Your task to perform on an android device: Open CNN.com Image 0: 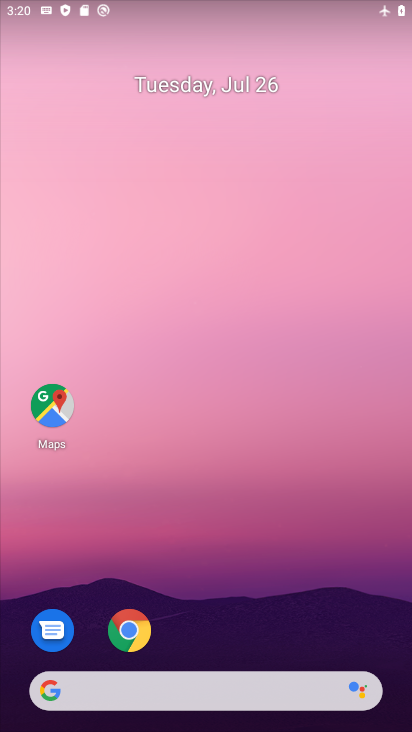
Step 0: drag from (243, 582) to (190, 230)
Your task to perform on an android device: Open CNN.com Image 1: 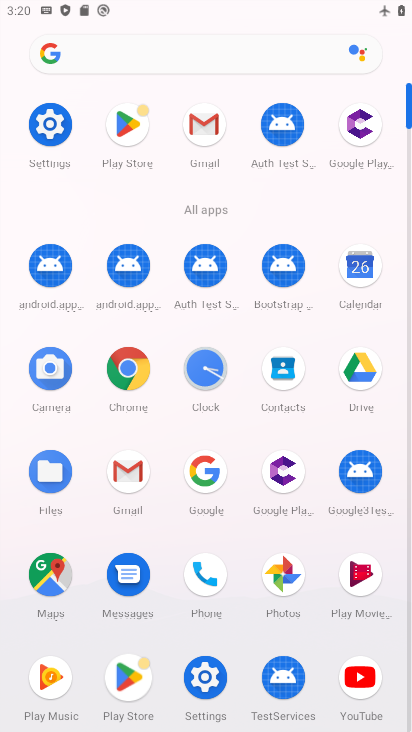
Step 1: click (128, 373)
Your task to perform on an android device: Open CNN.com Image 2: 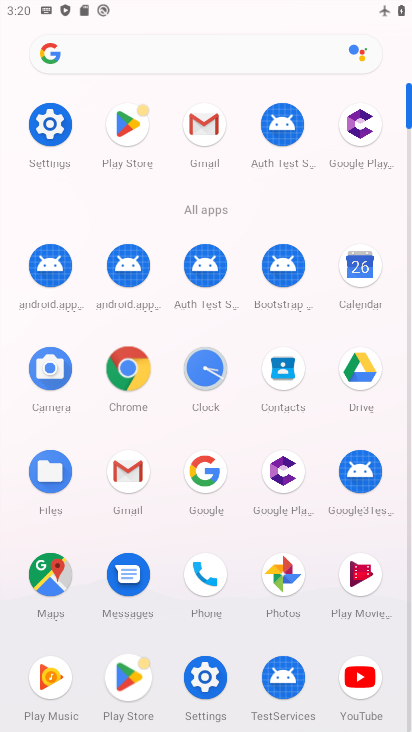
Step 2: click (129, 373)
Your task to perform on an android device: Open CNN.com Image 3: 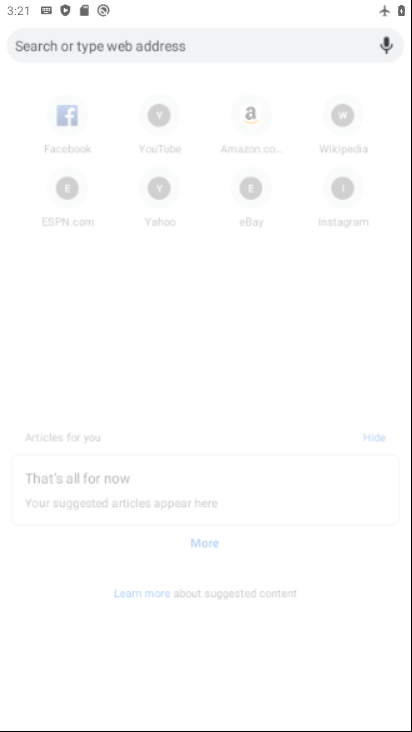
Step 3: click (133, 377)
Your task to perform on an android device: Open CNN.com Image 4: 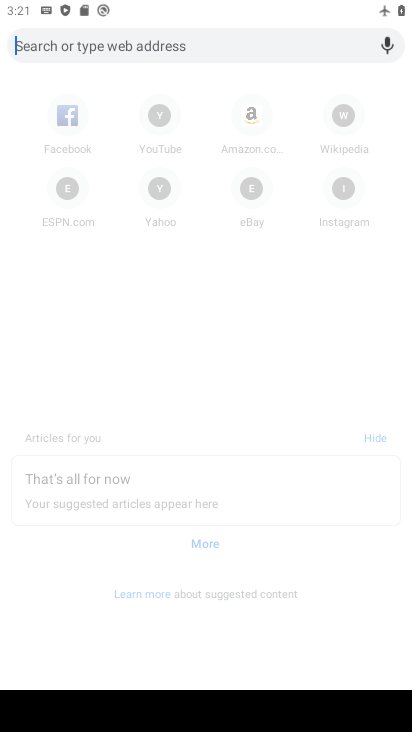
Step 4: click (30, 44)
Your task to perform on an android device: Open CNN.com Image 5: 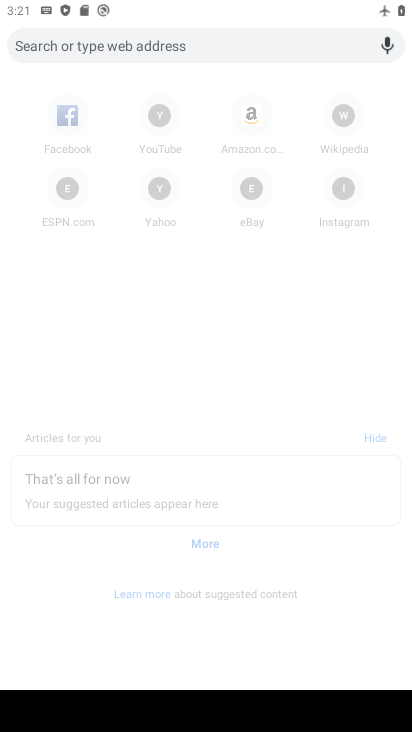
Step 5: click (30, 44)
Your task to perform on an android device: Open CNN.com Image 6: 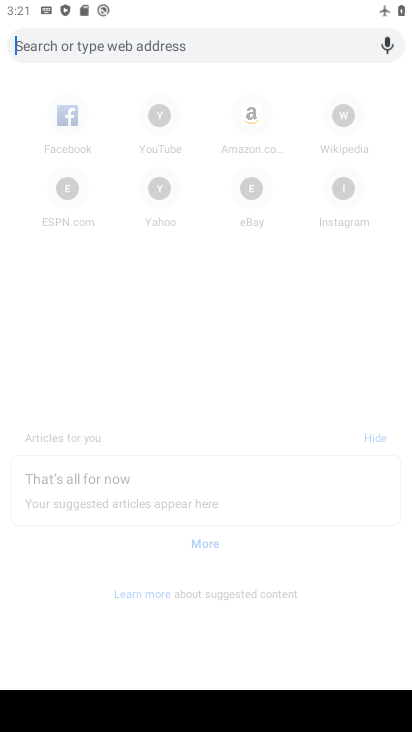
Step 6: type "CNN.com"
Your task to perform on an android device: Open CNN.com Image 7: 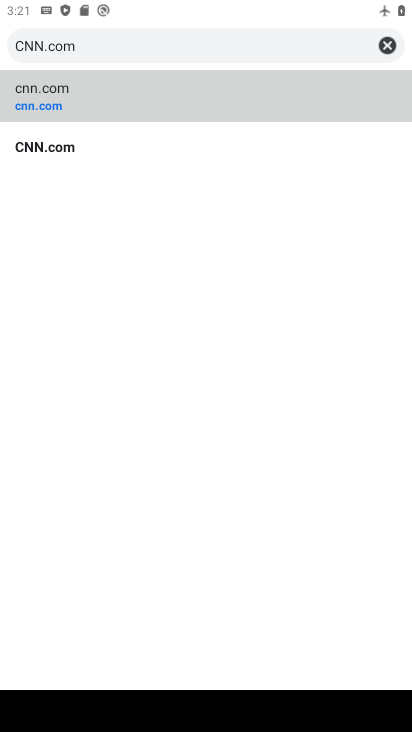
Step 7: click (57, 83)
Your task to perform on an android device: Open CNN.com Image 8: 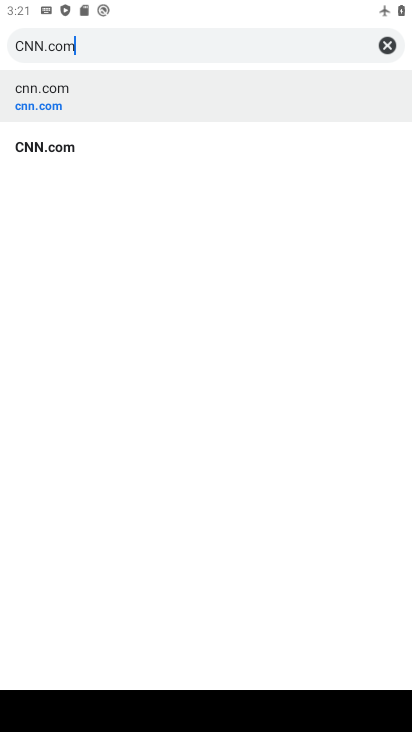
Step 8: click (60, 83)
Your task to perform on an android device: Open CNN.com Image 9: 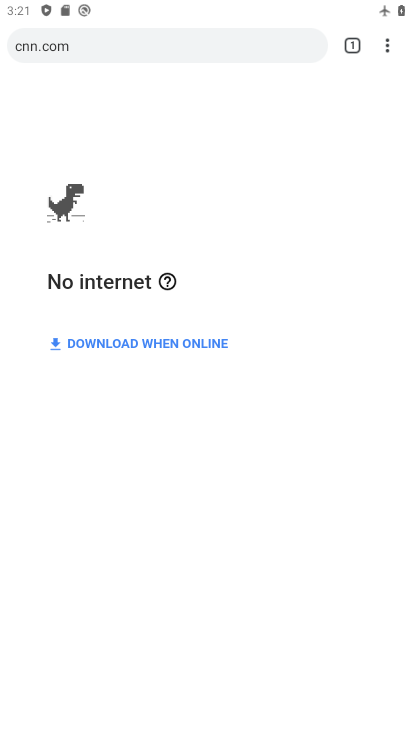
Step 9: press back button
Your task to perform on an android device: Open CNN.com Image 10: 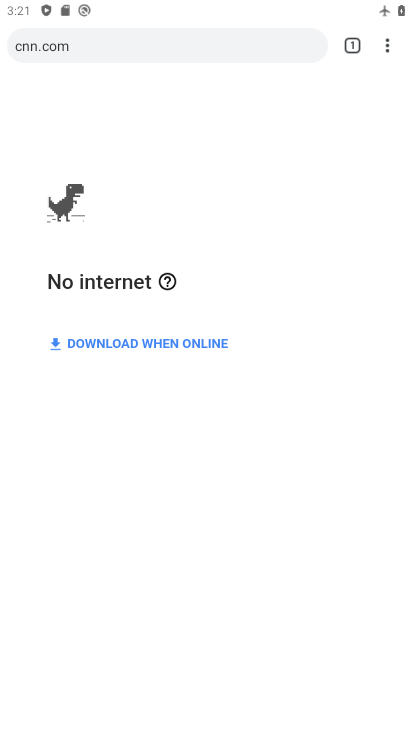
Step 10: press back button
Your task to perform on an android device: Open CNN.com Image 11: 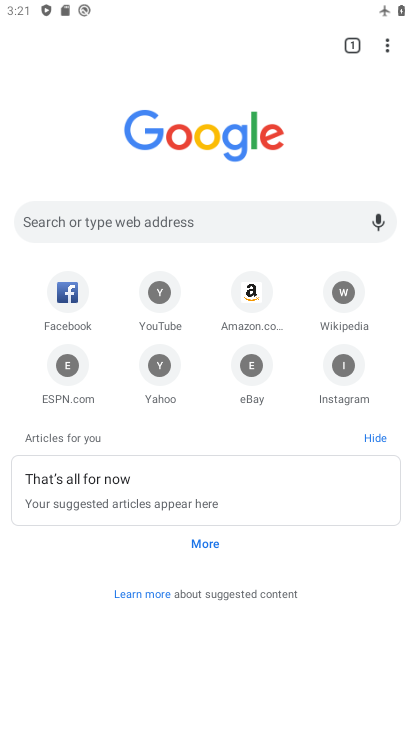
Step 11: press back button
Your task to perform on an android device: Open CNN.com Image 12: 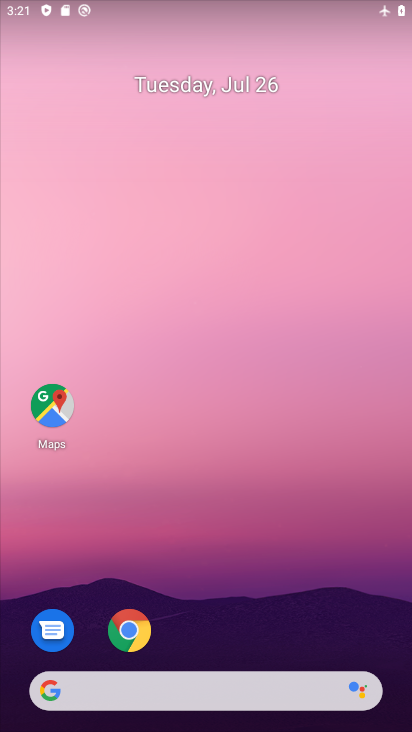
Step 12: drag from (213, 573) to (210, 114)
Your task to perform on an android device: Open CNN.com Image 13: 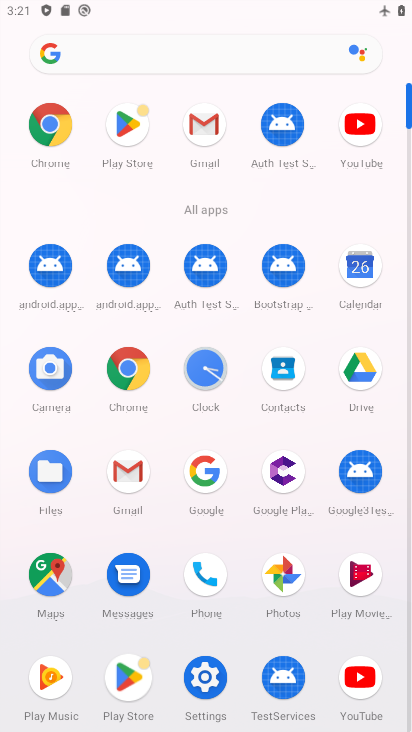
Step 13: click (210, 679)
Your task to perform on an android device: Open CNN.com Image 14: 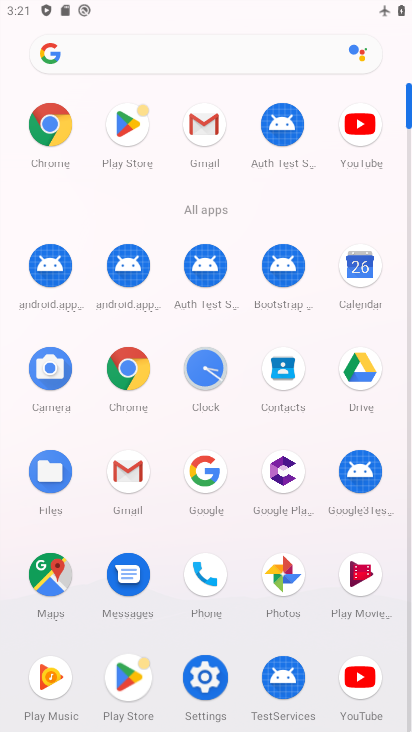
Step 14: click (208, 679)
Your task to perform on an android device: Open CNN.com Image 15: 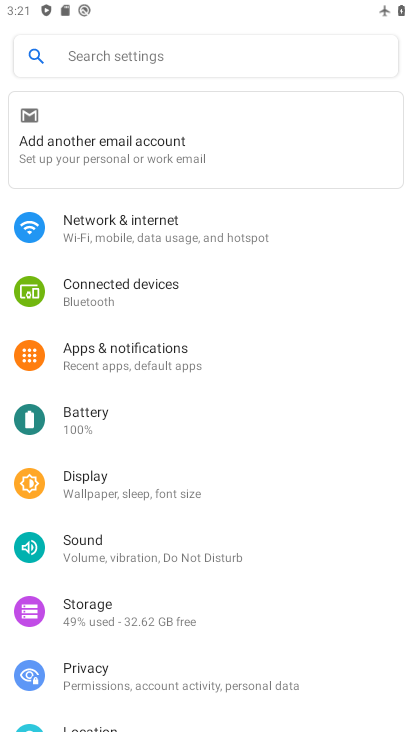
Step 15: click (209, 674)
Your task to perform on an android device: Open CNN.com Image 16: 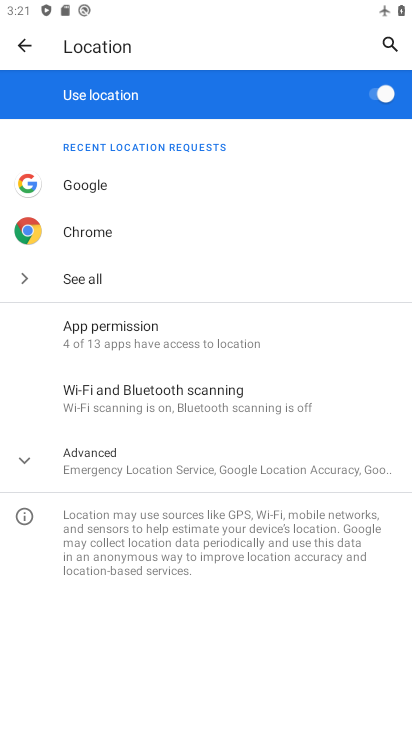
Step 16: click (15, 51)
Your task to perform on an android device: Open CNN.com Image 17: 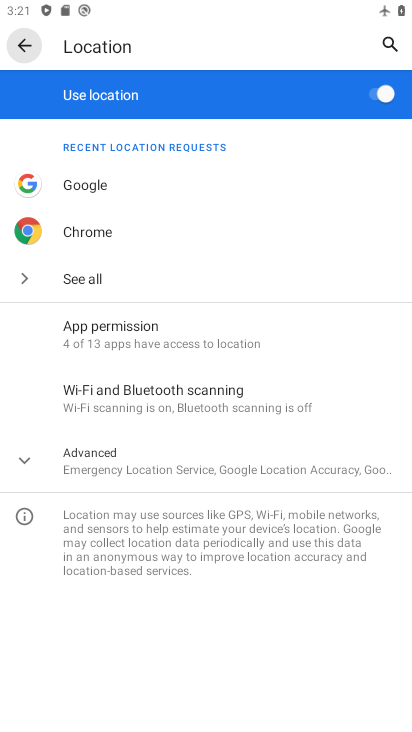
Step 17: click (19, 48)
Your task to perform on an android device: Open CNN.com Image 18: 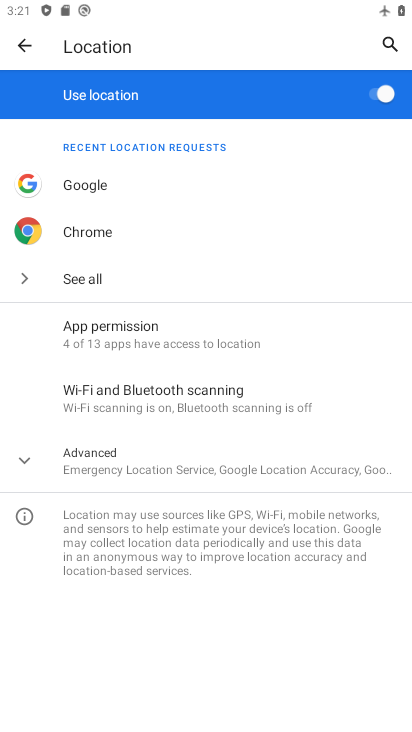
Step 18: click (21, 47)
Your task to perform on an android device: Open CNN.com Image 19: 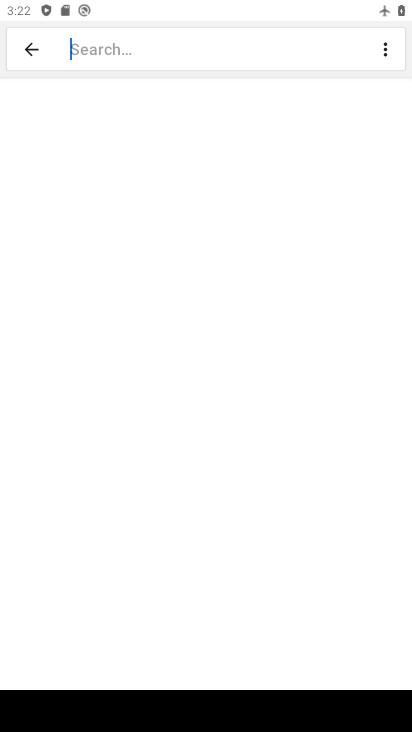
Step 19: type "CNN.com"
Your task to perform on an android device: Open CNN.com Image 20: 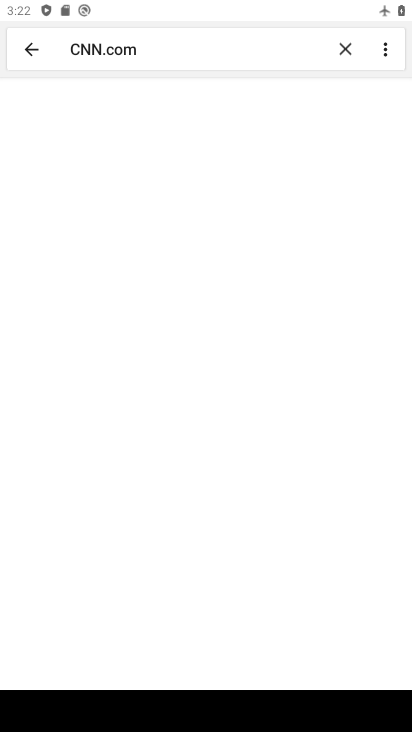
Step 20: click (116, 57)
Your task to perform on an android device: Open CNN.com Image 21: 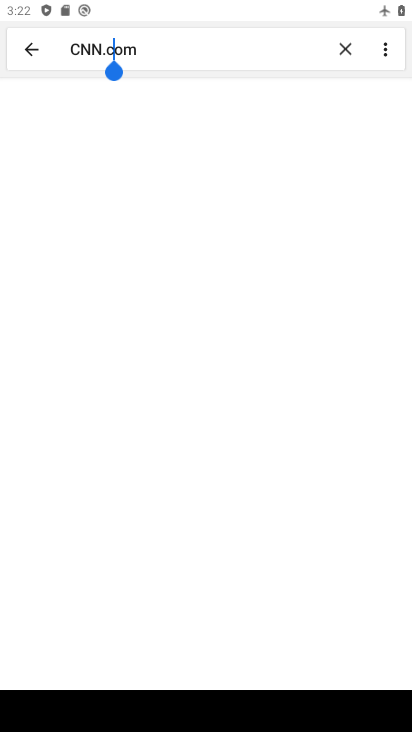
Step 21: click (116, 57)
Your task to perform on an android device: Open CNN.com Image 22: 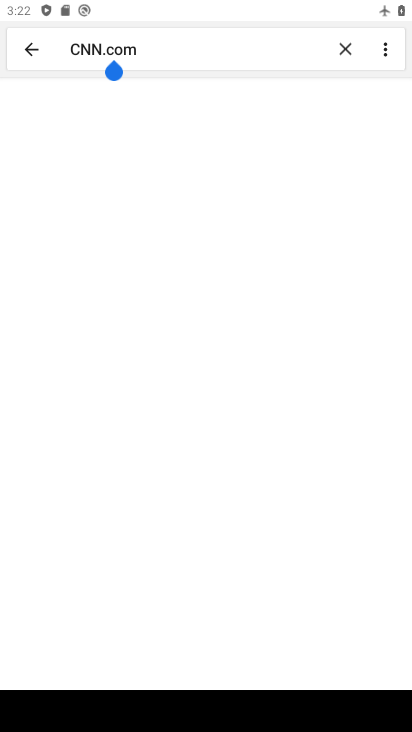
Step 22: click (119, 59)
Your task to perform on an android device: Open CNN.com Image 23: 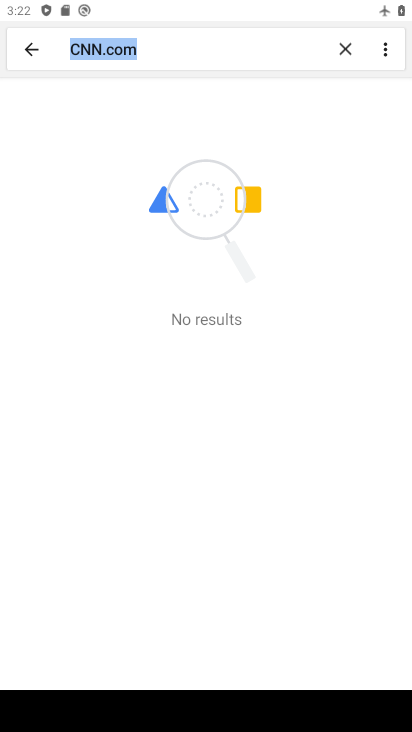
Step 23: click (125, 60)
Your task to perform on an android device: Open CNN.com Image 24: 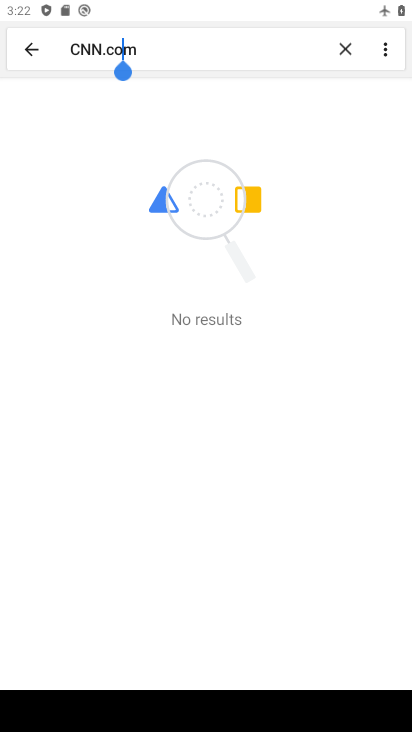
Step 24: click (158, 48)
Your task to perform on an android device: Open CNN.com Image 25: 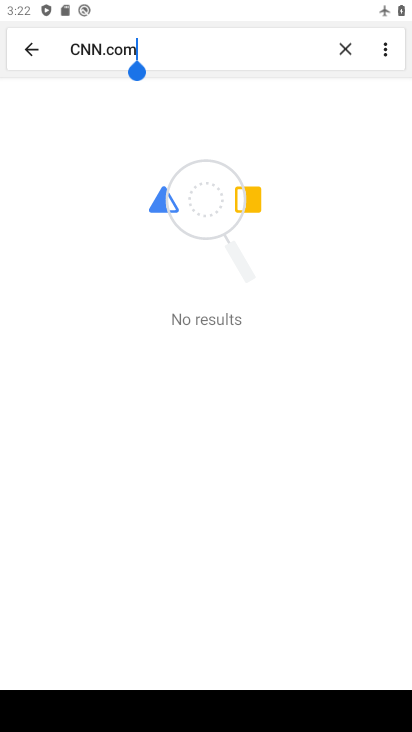
Step 25: click (29, 45)
Your task to perform on an android device: Open CNN.com Image 26: 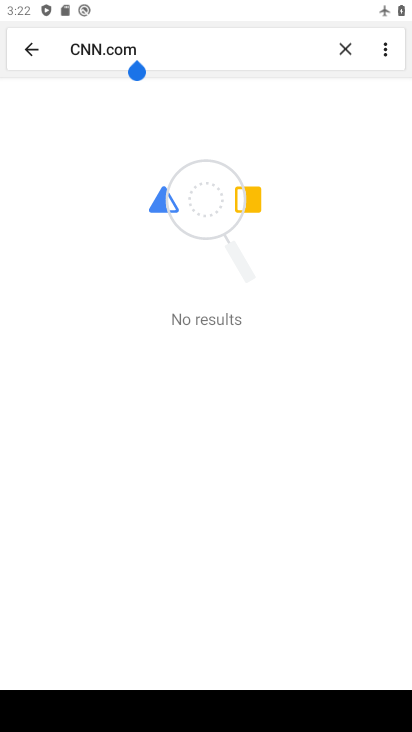
Step 26: click (25, 46)
Your task to perform on an android device: Open CNN.com Image 27: 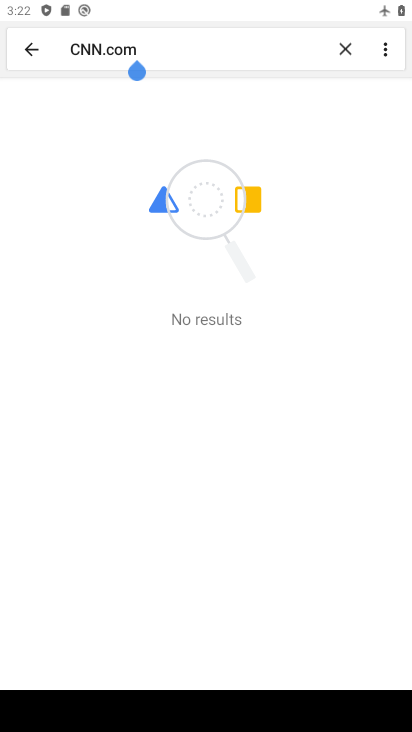
Step 27: click (23, 56)
Your task to perform on an android device: Open CNN.com Image 28: 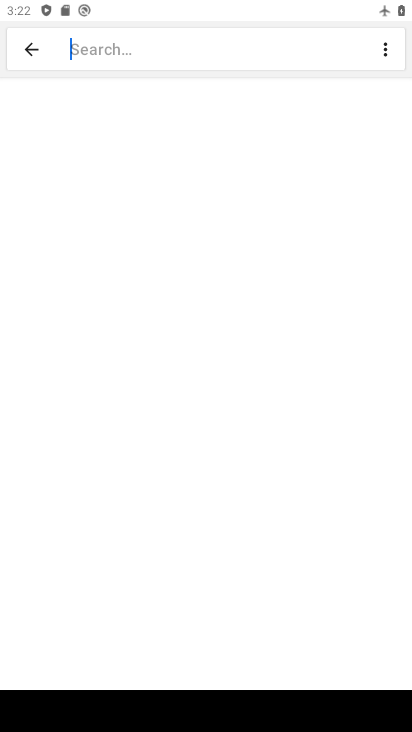
Step 28: click (31, 48)
Your task to perform on an android device: Open CNN.com Image 29: 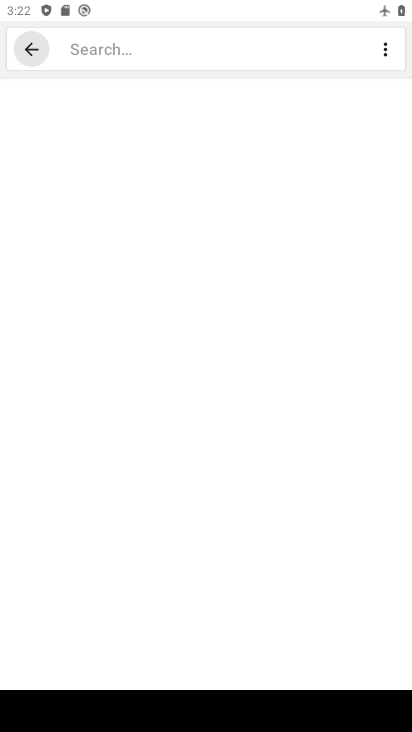
Step 29: click (31, 48)
Your task to perform on an android device: Open CNN.com Image 30: 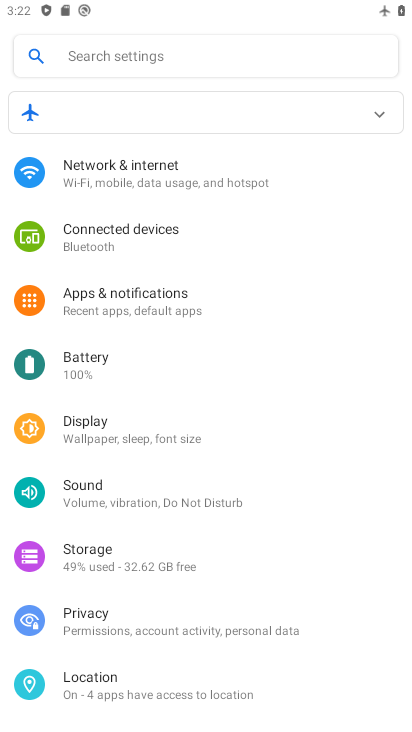
Step 30: click (173, 160)
Your task to perform on an android device: Open CNN.com Image 31: 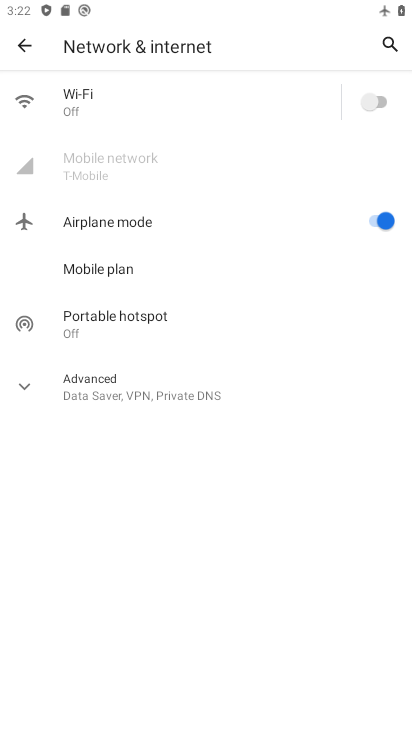
Step 31: click (386, 221)
Your task to perform on an android device: Open CNN.com Image 32: 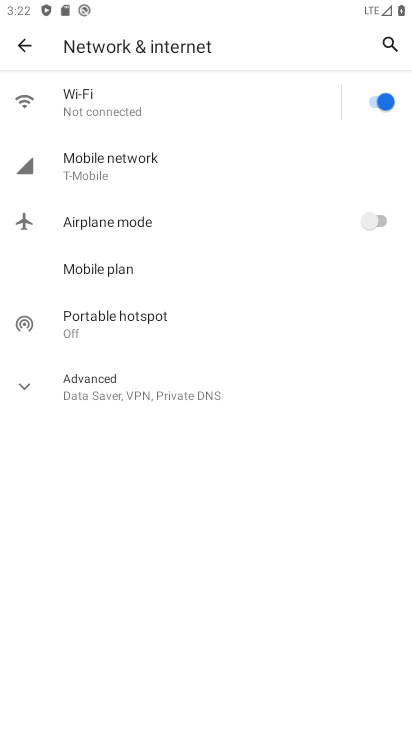
Step 32: press back button
Your task to perform on an android device: Open CNN.com Image 33: 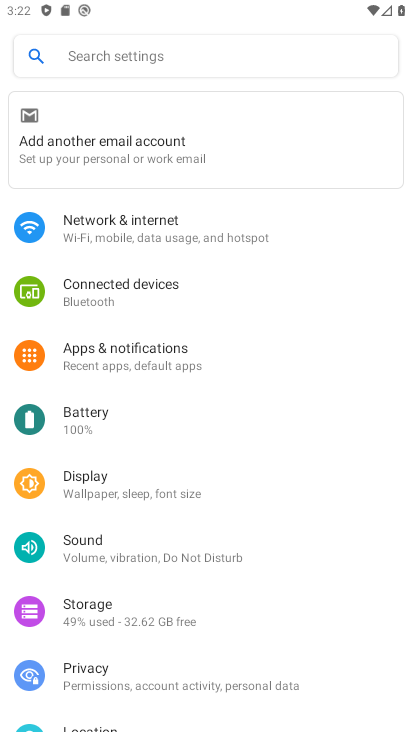
Step 33: press home button
Your task to perform on an android device: Open CNN.com Image 34: 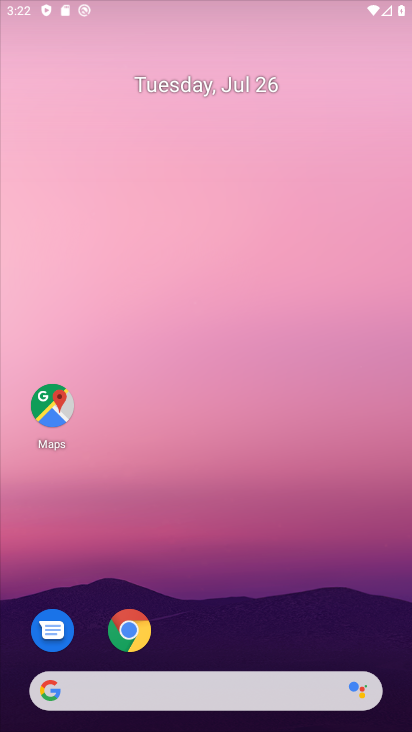
Step 34: drag from (188, 575) to (110, 10)
Your task to perform on an android device: Open CNN.com Image 35: 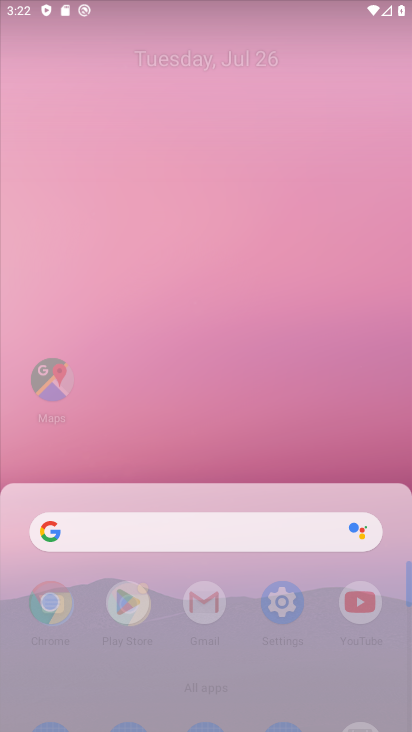
Step 35: drag from (279, 396) to (241, 99)
Your task to perform on an android device: Open CNN.com Image 36: 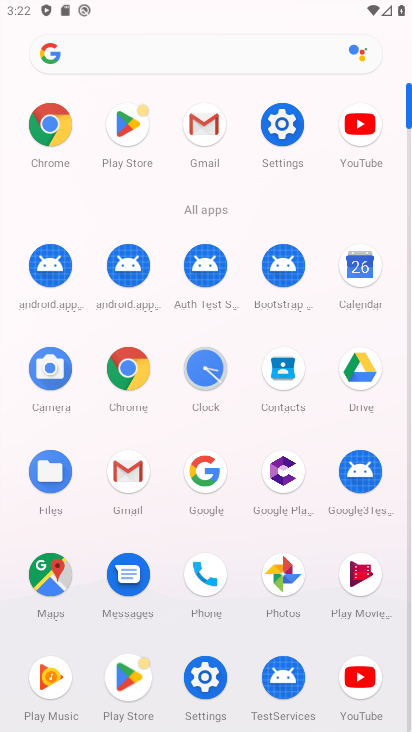
Step 36: click (50, 121)
Your task to perform on an android device: Open CNN.com Image 37: 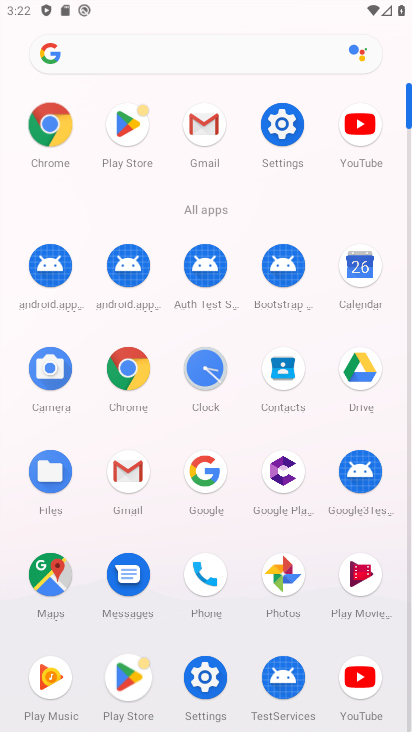
Step 37: click (49, 120)
Your task to perform on an android device: Open CNN.com Image 38: 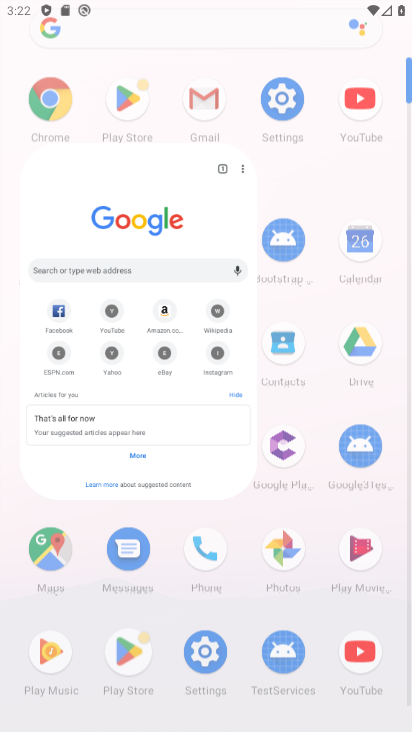
Step 38: click (48, 121)
Your task to perform on an android device: Open CNN.com Image 39: 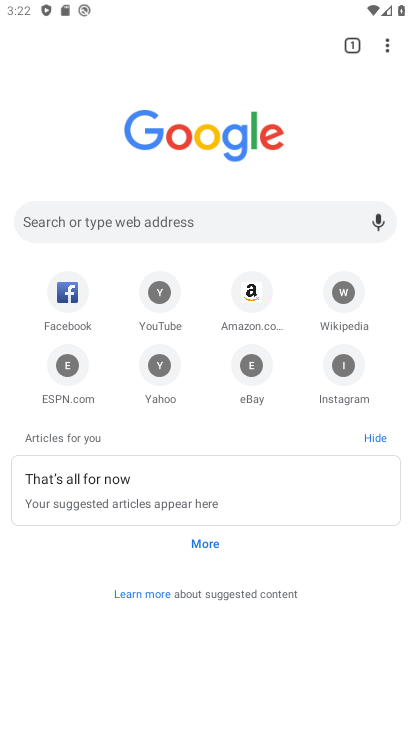
Step 39: click (53, 211)
Your task to perform on an android device: Open CNN.com Image 40: 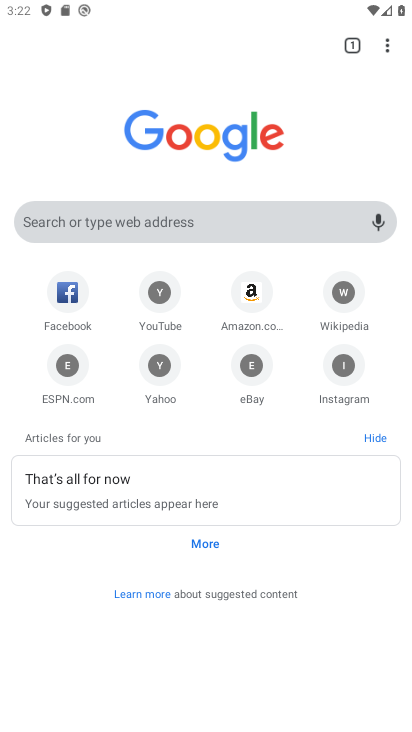
Step 40: click (64, 217)
Your task to perform on an android device: Open CNN.com Image 41: 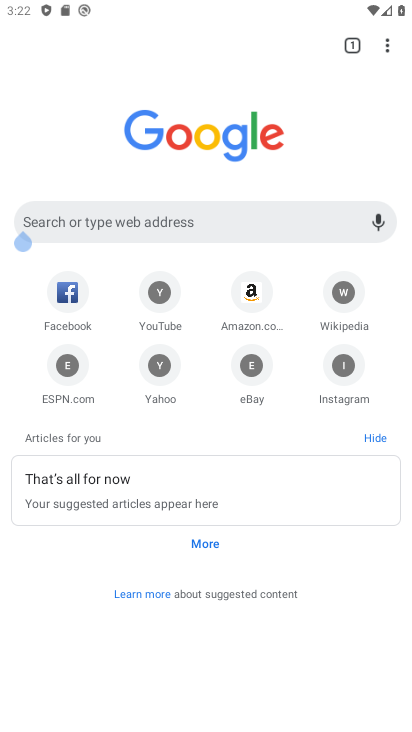
Step 41: click (64, 221)
Your task to perform on an android device: Open CNN.com Image 42: 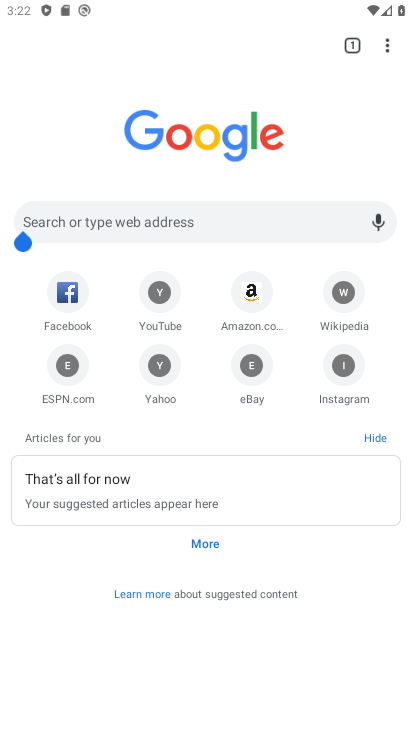
Step 42: click (66, 223)
Your task to perform on an android device: Open CNN.com Image 43: 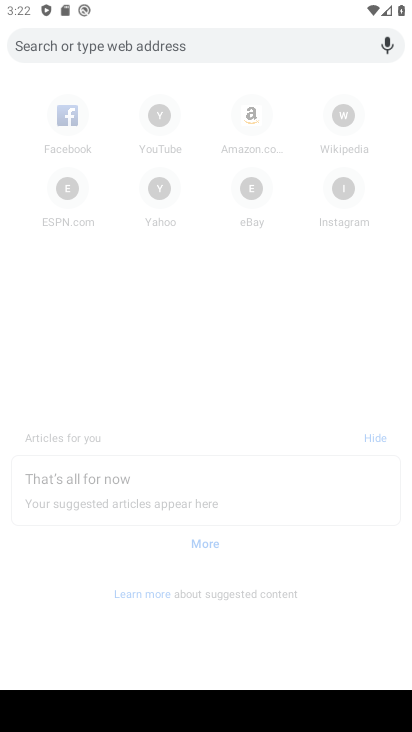
Step 43: type "CNN.com"
Your task to perform on an android device: Open CNN.com Image 44: 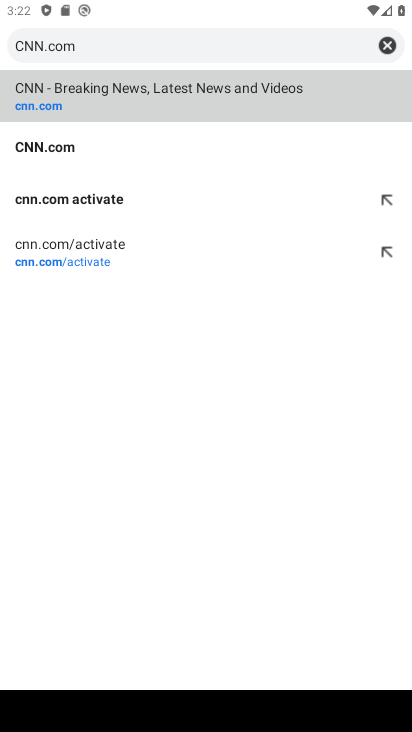
Step 44: click (106, 105)
Your task to perform on an android device: Open CNN.com Image 45: 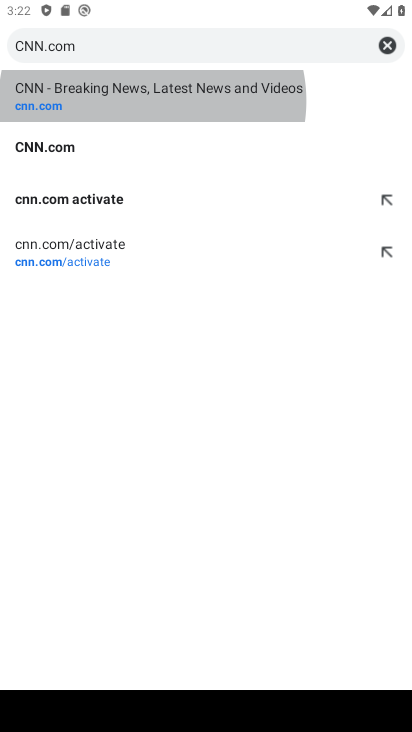
Step 45: click (101, 101)
Your task to perform on an android device: Open CNN.com Image 46: 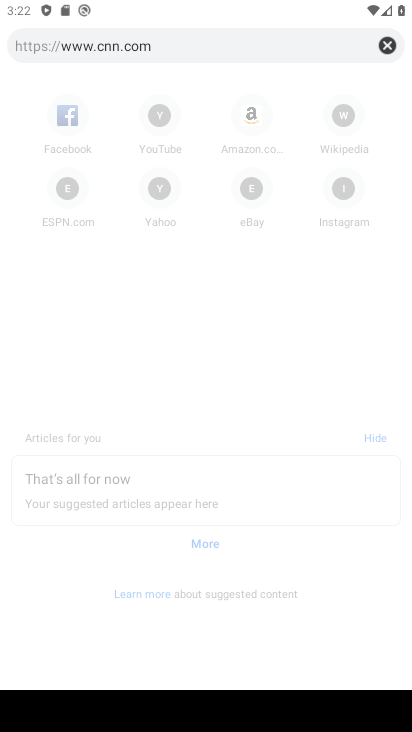
Step 46: click (100, 100)
Your task to perform on an android device: Open CNN.com Image 47: 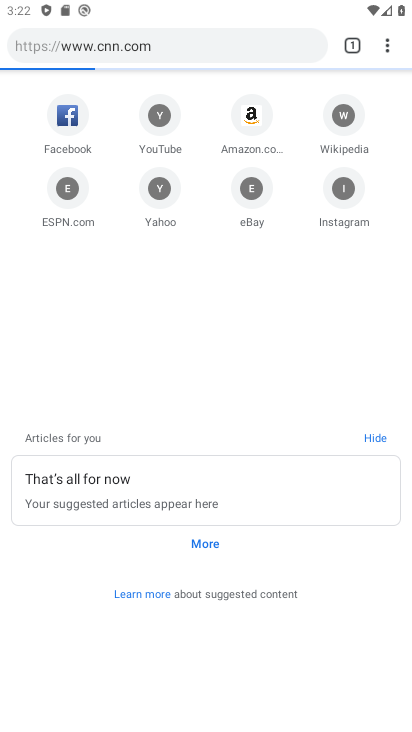
Step 47: click (99, 100)
Your task to perform on an android device: Open CNN.com Image 48: 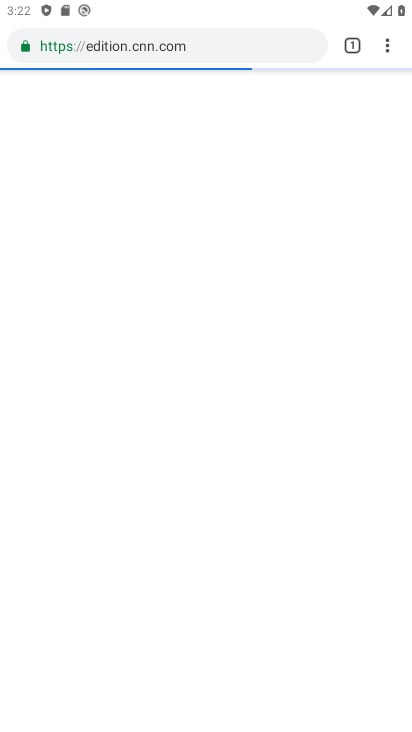
Step 48: task complete